Your task to perform on an android device: Open CNN.com Image 0: 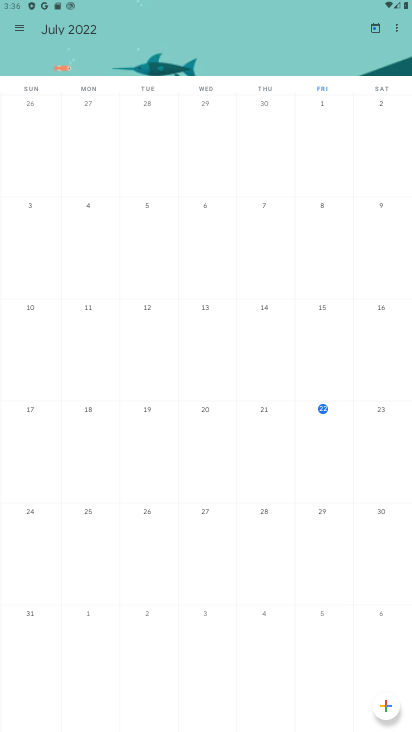
Step 0: press home button
Your task to perform on an android device: Open CNN.com Image 1: 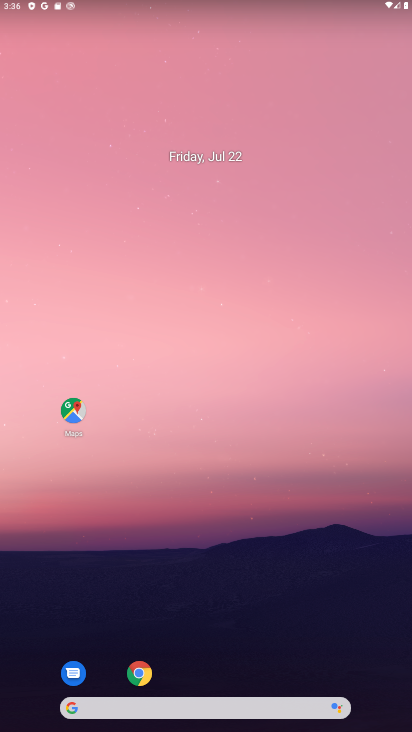
Step 1: click (145, 677)
Your task to perform on an android device: Open CNN.com Image 2: 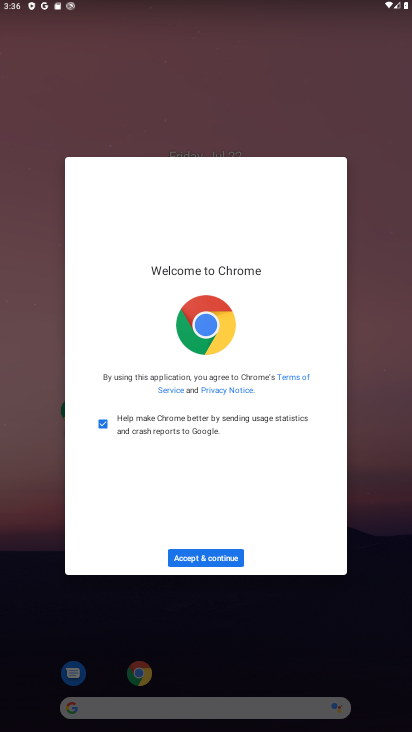
Step 2: click (233, 560)
Your task to perform on an android device: Open CNN.com Image 3: 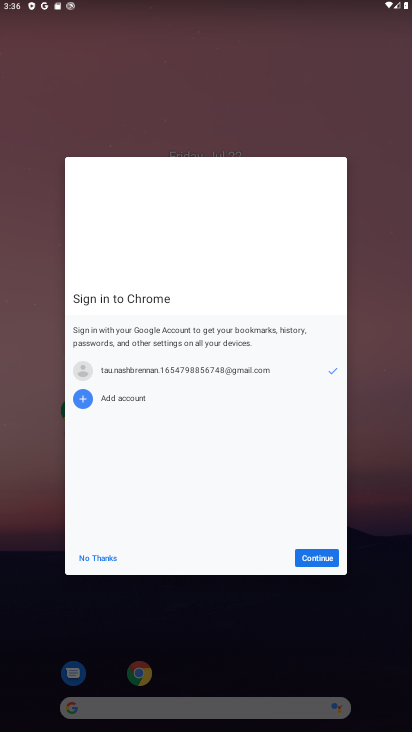
Step 3: click (327, 552)
Your task to perform on an android device: Open CNN.com Image 4: 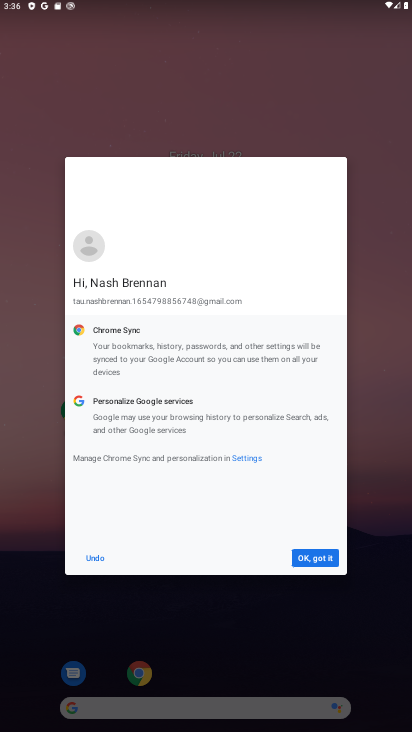
Step 4: click (327, 558)
Your task to perform on an android device: Open CNN.com Image 5: 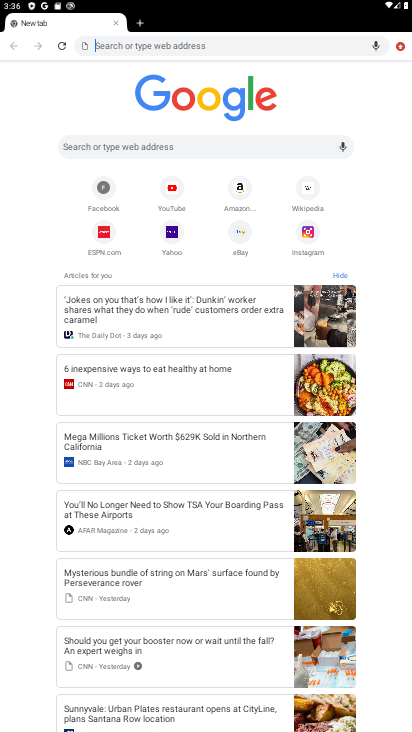
Step 5: click (196, 143)
Your task to perform on an android device: Open CNN.com Image 6: 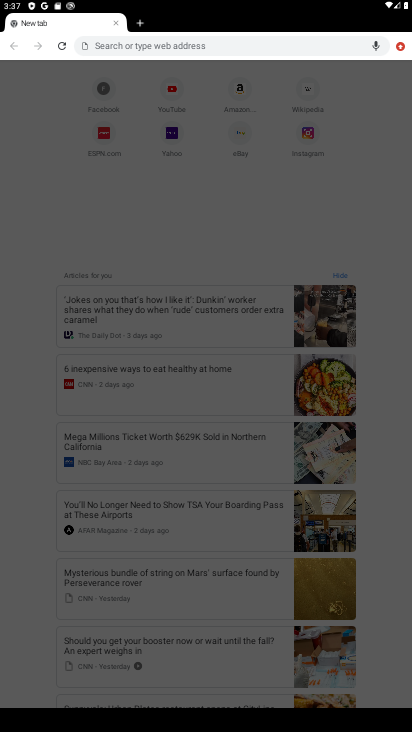
Step 6: type "cnn.com"
Your task to perform on an android device: Open CNN.com Image 7: 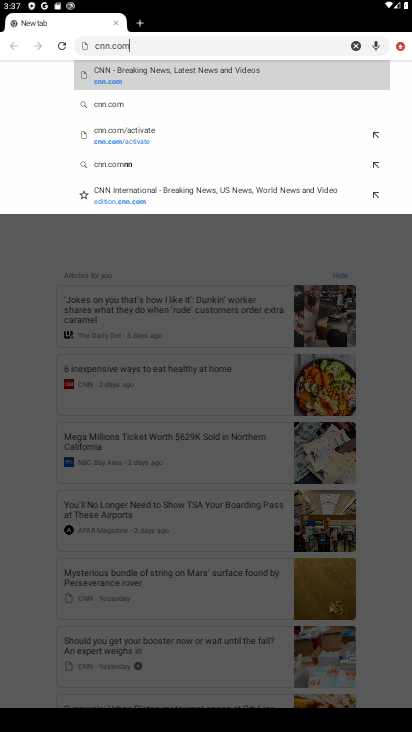
Step 7: click (164, 83)
Your task to perform on an android device: Open CNN.com Image 8: 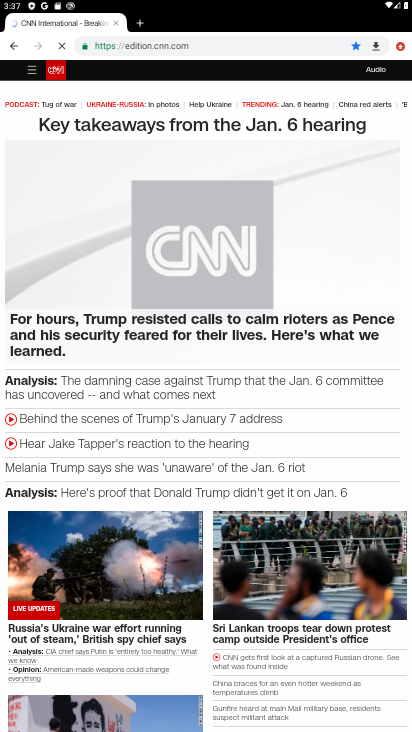
Step 8: task complete